Your task to perform on an android device: change alarm snooze length Image 0: 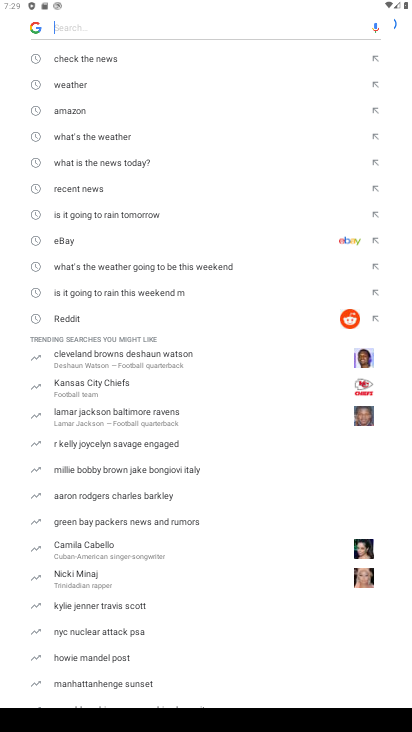
Step 0: press home button
Your task to perform on an android device: change alarm snooze length Image 1: 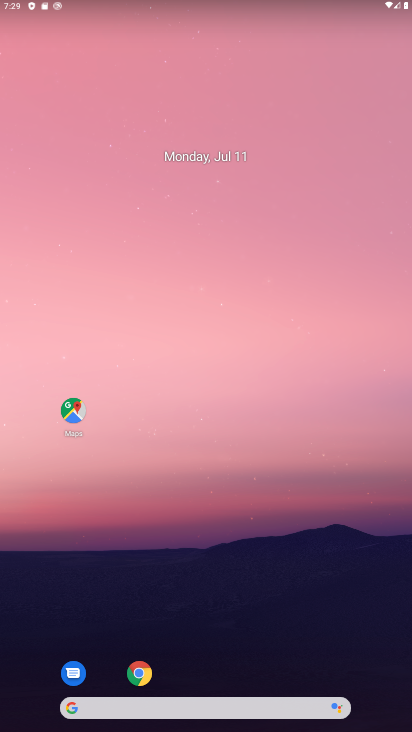
Step 1: drag from (164, 685) to (164, 265)
Your task to perform on an android device: change alarm snooze length Image 2: 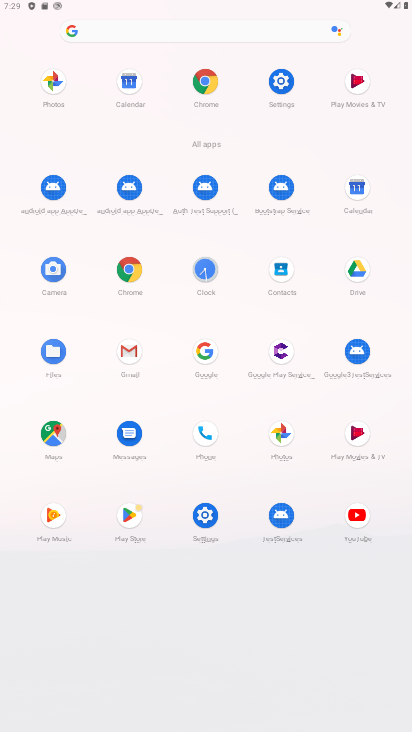
Step 2: click (210, 271)
Your task to perform on an android device: change alarm snooze length Image 3: 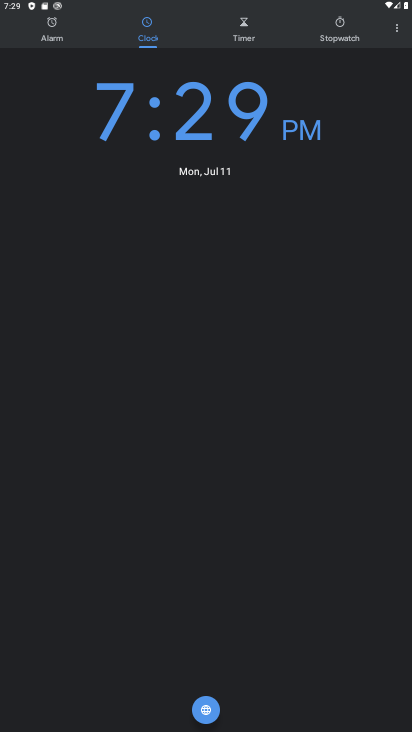
Step 3: click (400, 28)
Your task to perform on an android device: change alarm snooze length Image 4: 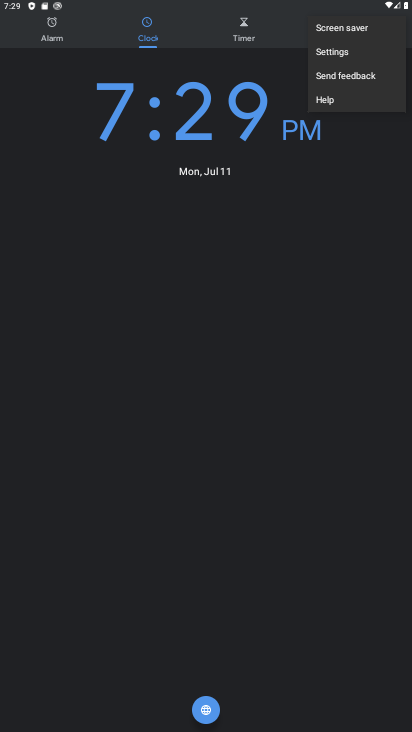
Step 4: click (348, 45)
Your task to perform on an android device: change alarm snooze length Image 5: 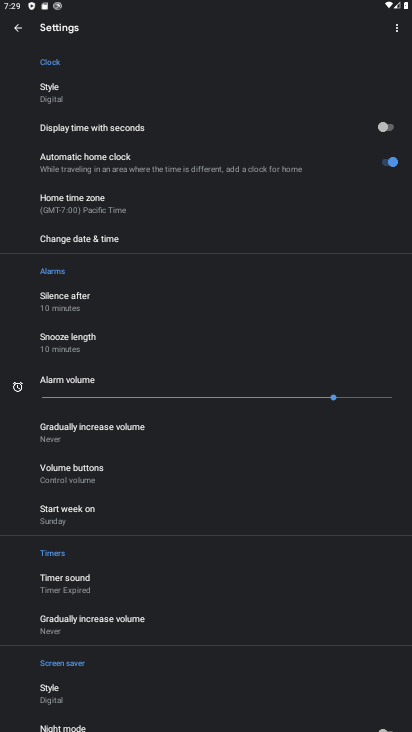
Step 5: click (64, 338)
Your task to perform on an android device: change alarm snooze length Image 6: 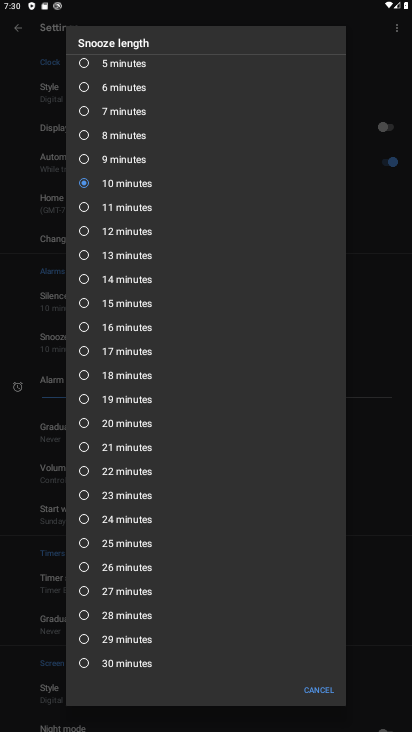
Step 6: click (124, 236)
Your task to perform on an android device: change alarm snooze length Image 7: 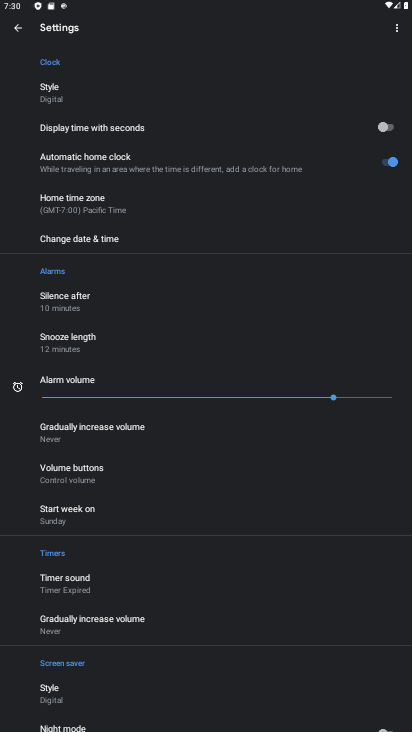
Step 7: task complete